Your task to perform on an android device: turn off location Image 0: 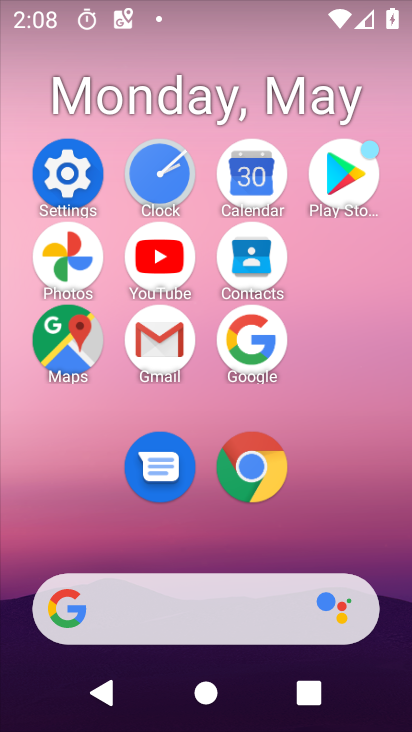
Step 0: click (80, 169)
Your task to perform on an android device: turn off location Image 1: 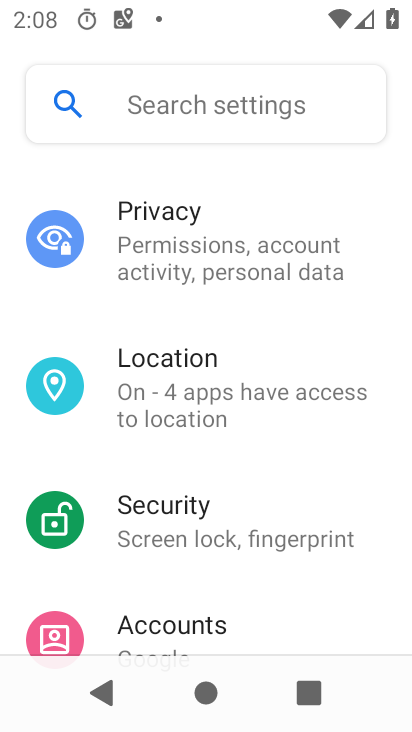
Step 1: click (234, 376)
Your task to perform on an android device: turn off location Image 2: 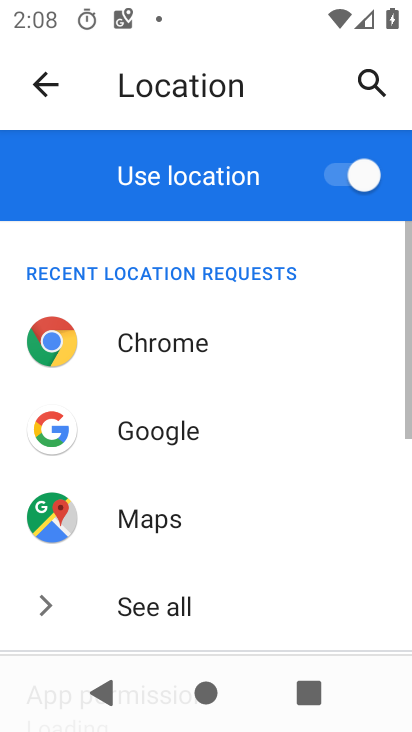
Step 2: click (369, 163)
Your task to perform on an android device: turn off location Image 3: 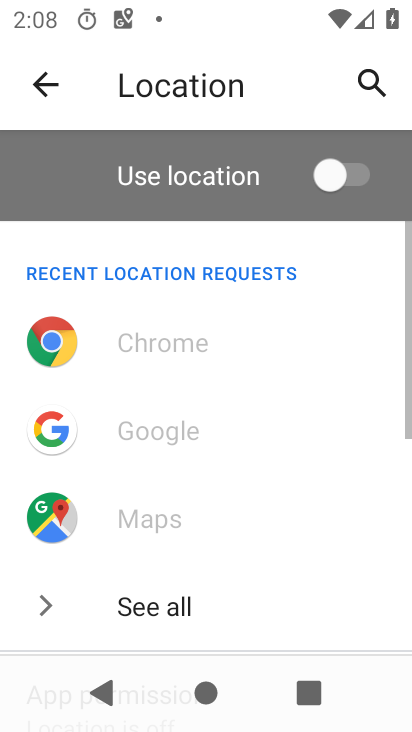
Step 3: task complete